Your task to perform on an android device: Clear the shopping cart on ebay.com. Image 0: 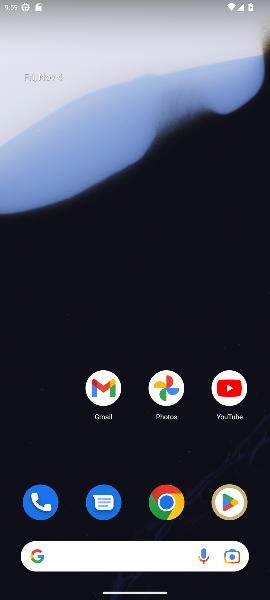
Step 0: click (163, 497)
Your task to perform on an android device: Clear the shopping cart on ebay.com. Image 1: 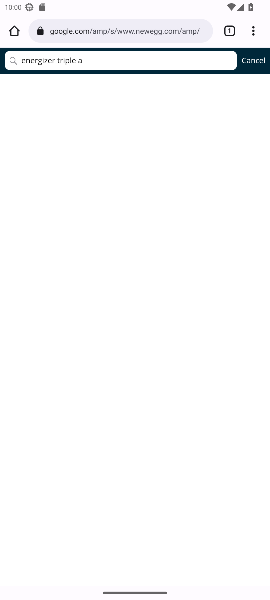
Step 1: click (142, 25)
Your task to perform on an android device: Clear the shopping cart on ebay.com. Image 2: 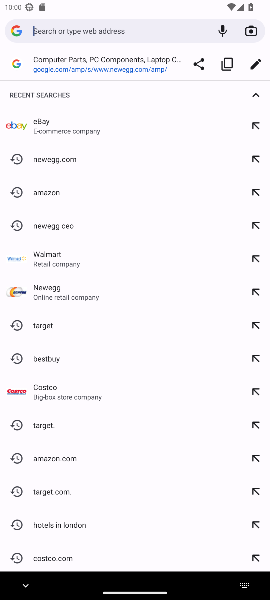
Step 2: click (38, 123)
Your task to perform on an android device: Clear the shopping cart on ebay.com. Image 3: 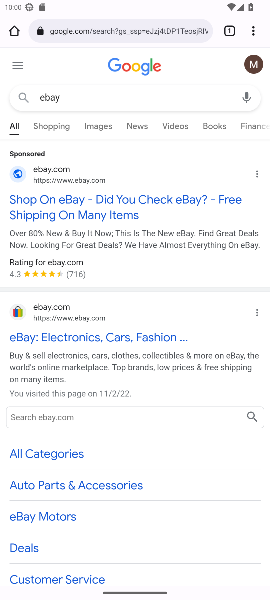
Step 3: click (79, 311)
Your task to perform on an android device: Clear the shopping cart on ebay.com. Image 4: 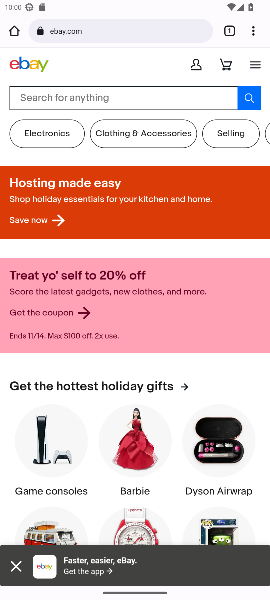
Step 4: click (225, 64)
Your task to perform on an android device: Clear the shopping cart on ebay.com. Image 5: 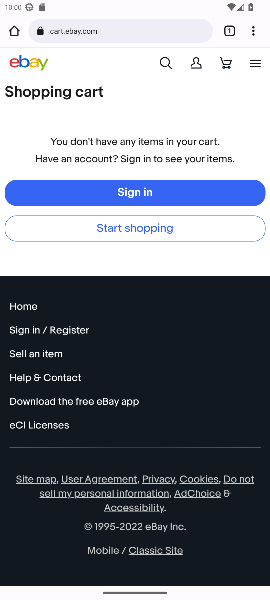
Step 5: task complete